Your task to perform on an android device: Set the phone to "Do not disturb". Image 0: 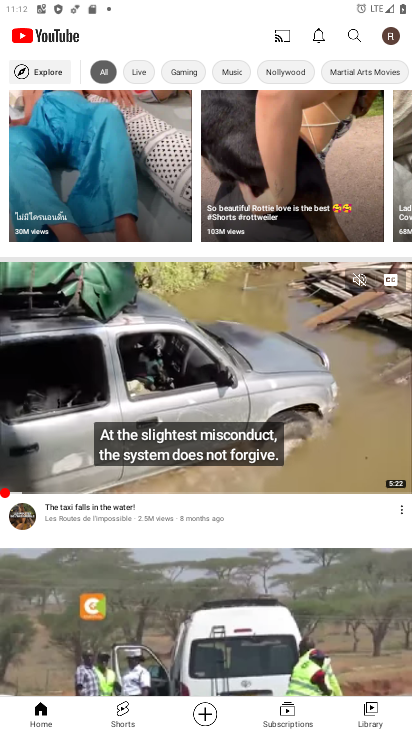
Step 0: press home button
Your task to perform on an android device: Set the phone to "Do not disturb". Image 1: 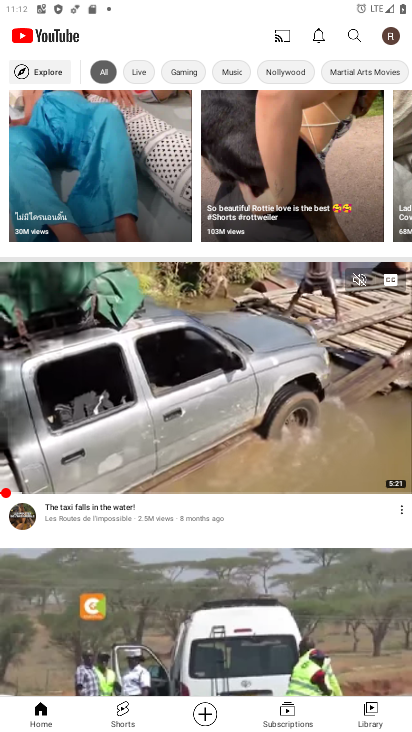
Step 1: drag from (197, 658) to (239, 145)
Your task to perform on an android device: Set the phone to "Do not disturb". Image 2: 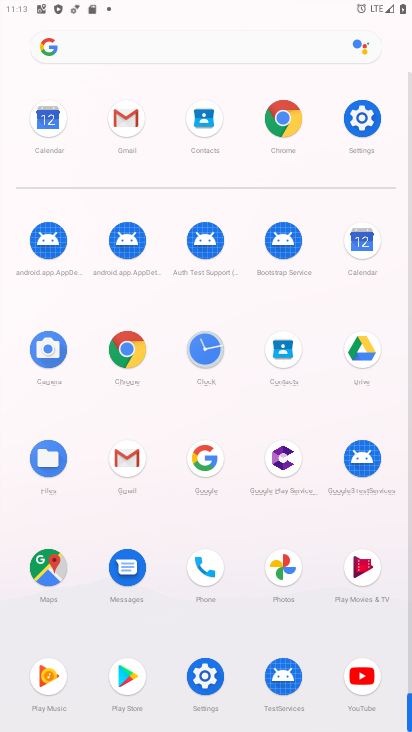
Step 2: click (357, 127)
Your task to perform on an android device: Set the phone to "Do not disturb". Image 3: 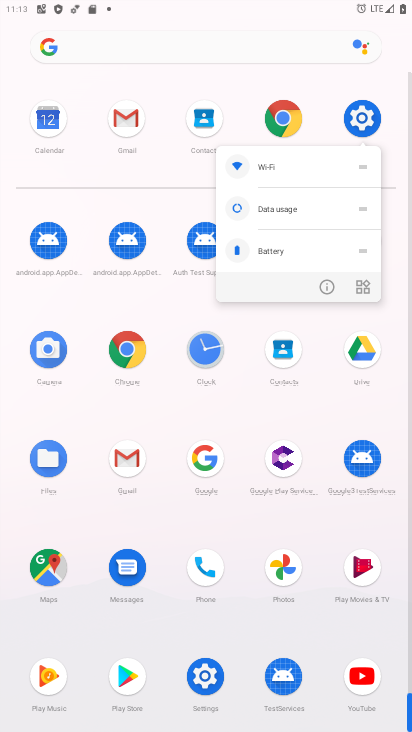
Step 3: click (325, 288)
Your task to perform on an android device: Set the phone to "Do not disturb". Image 4: 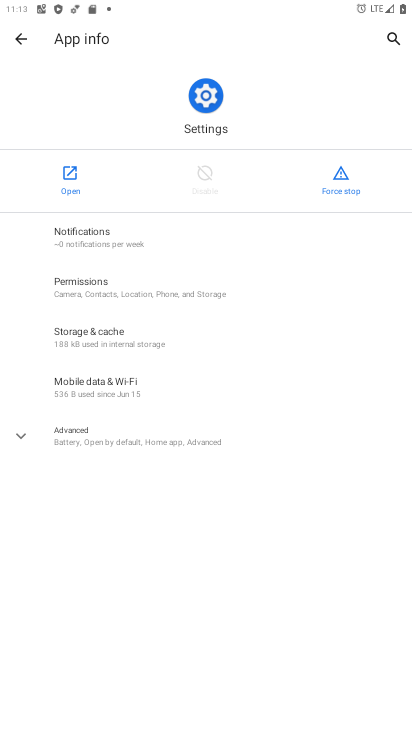
Step 4: click (53, 176)
Your task to perform on an android device: Set the phone to "Do not disturb". Image 5: 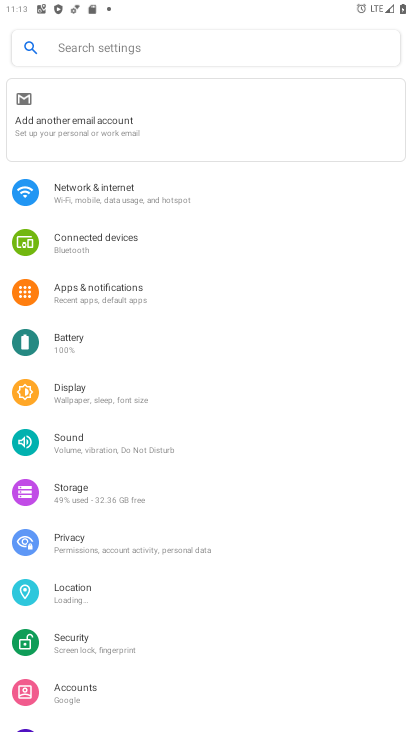
Step 5: drag from (196, 539) to (272, 183)
Your task to perform on an android device: Set the phone to "Do not disturb". Image 6: 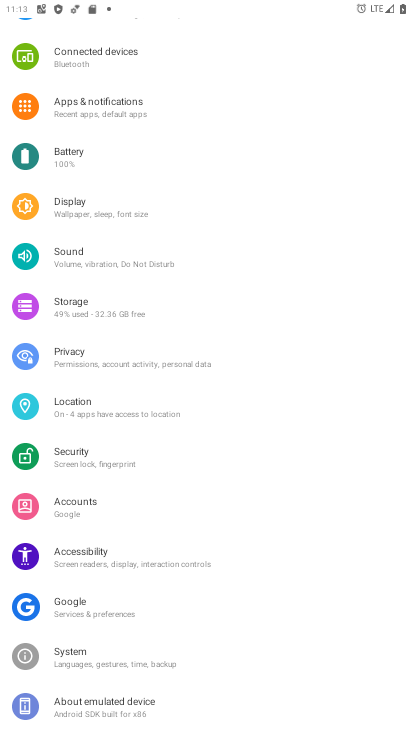
Step 6: drag from (179, 488) to (227, 198)
Your task to perform on an android device: Set the phone to "Do not disturb". Image 7: 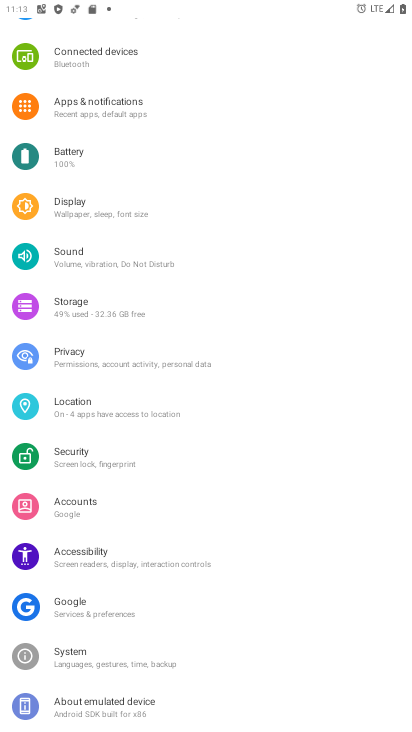
Step 7: drag from (240, 134) to (236, 712)
Your task to perform on an android device: Set the phone to "Do not disturb". Image 8: 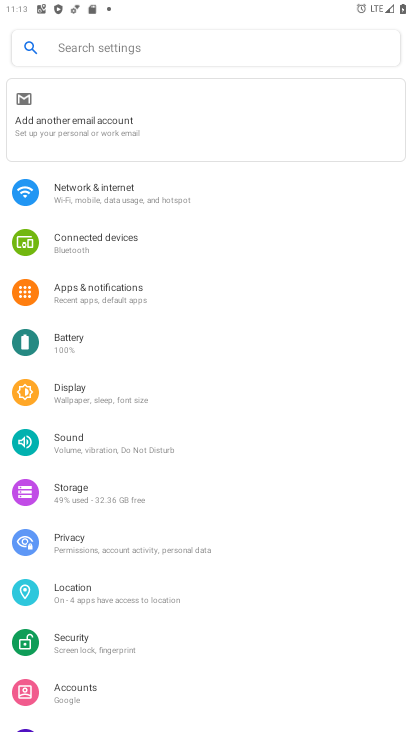
Step 8: drag from (177, 433) to (279, 149)
Your task to perform on an android device: Set the phone to "Do not disturb". Image 9: 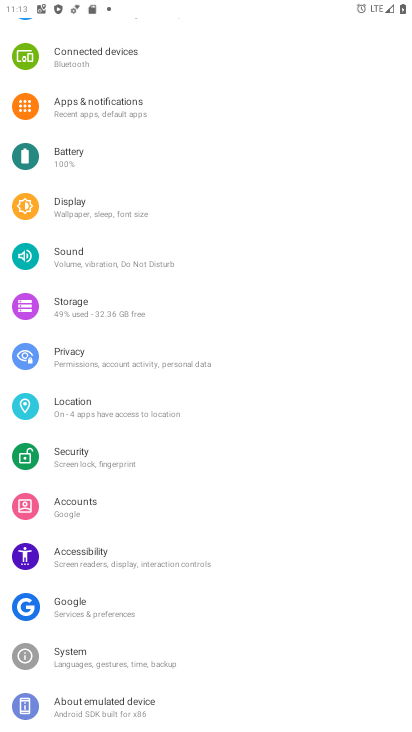
Step 9: drag from (279, 126) to (271, 249)
Your task to perform on an android device: Set the phone to "Do not disturb". Image 10: 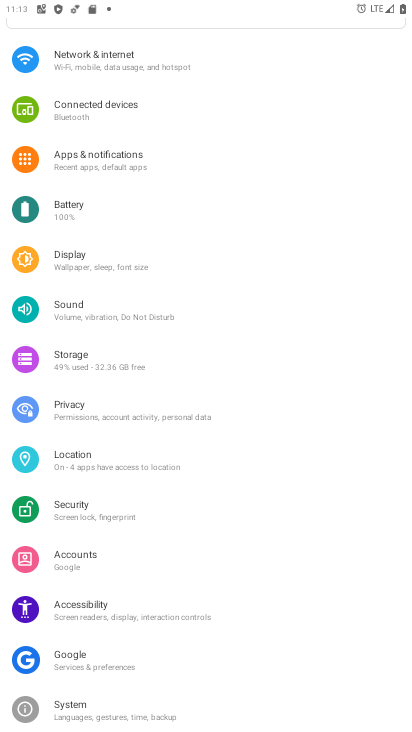
Step 10: drag from (203, 524) to (300, 145)
Your task to perform on an android device: Set the phone to "Do not disturb". Image 11: 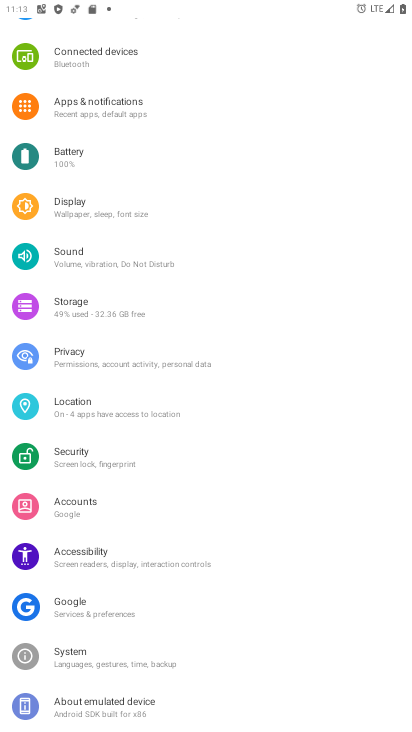
Step 11: click (162, 701)
Your task to perform on an android device: Set the phone to "Do not disturb". Image 12: 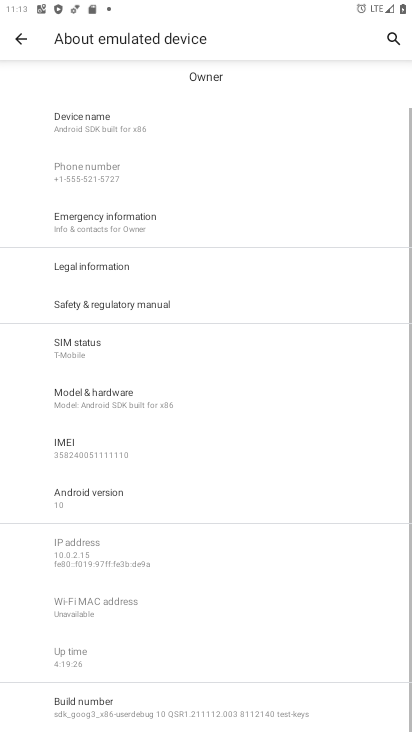
Step 12: drag from (192, 595) to (211, 280)
Your task to perform on an android device: Set the phone to "Do not disturb". Image 13: 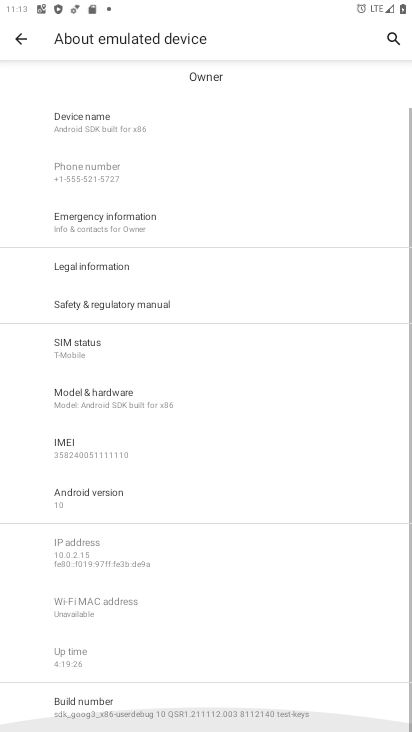
Step 13: drag from (157, 328) to (162, 665)
Your task to perform on an android device: Set the phone to "Do not disturb". Image 14: 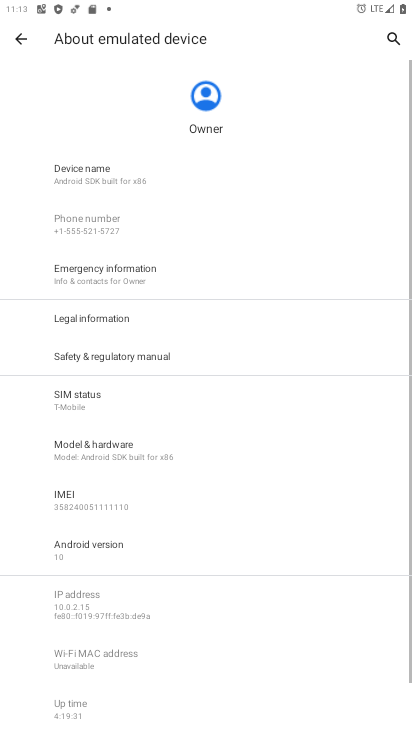
Step 14: drag from (204, 527) to (242, 245)
Your task to perform on an android device: Set the phone to "Do not disturb". Image 15: 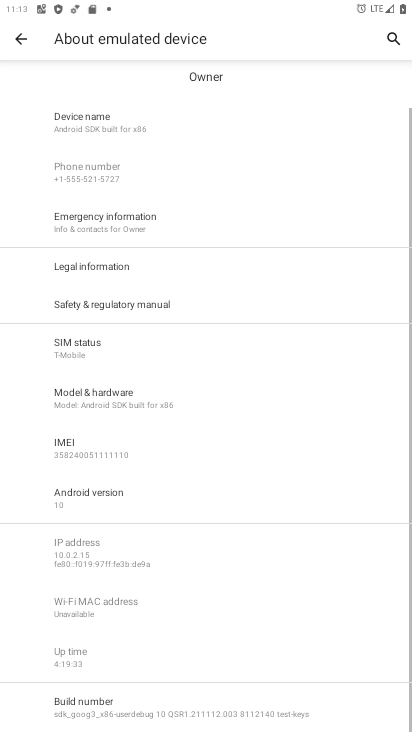
Step 15: drag from (176, 520) to (219, 252)
Your task to perform on an android device: Set the phone to "Do not disturb". Image 16: 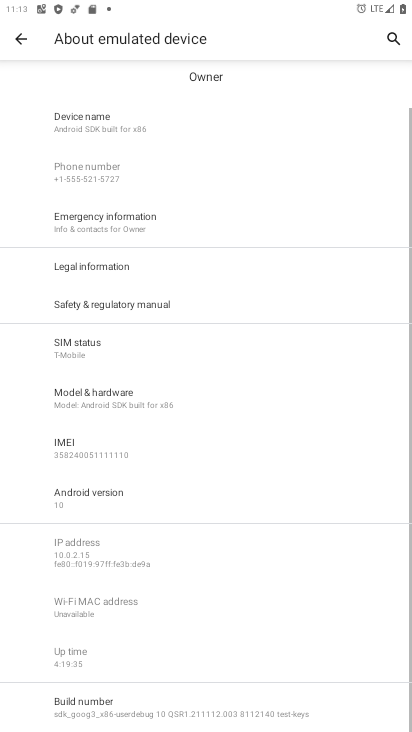
Step 16: drag from (190, 268) to (248, 639)
Your task to perform on an android device: Set the phone to "Do not disturb". Image 17: 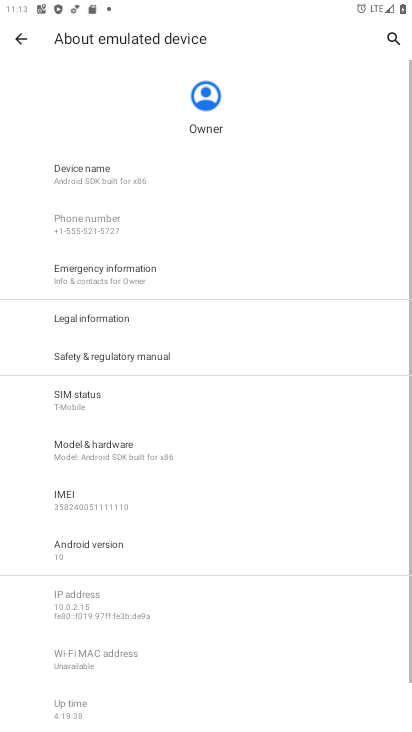
Step 17: click (18, 39)
Your task to perform on an android device: Set the phone to "Do not disturb". Image 18: 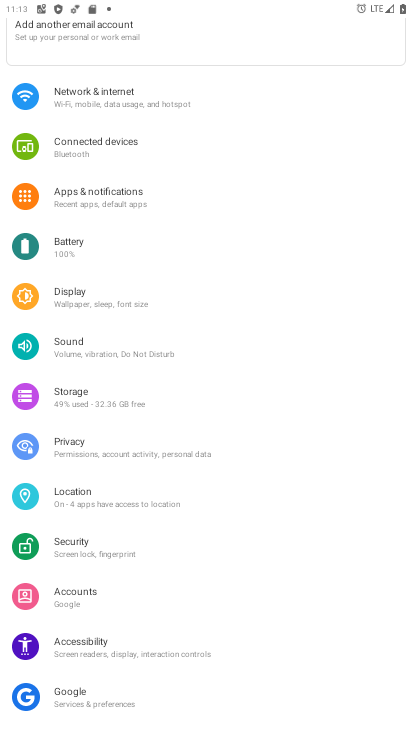
Step 18: click (110, 198)
Your task to perform on an android device: Set the phone to "Do not disturb". Image 19: 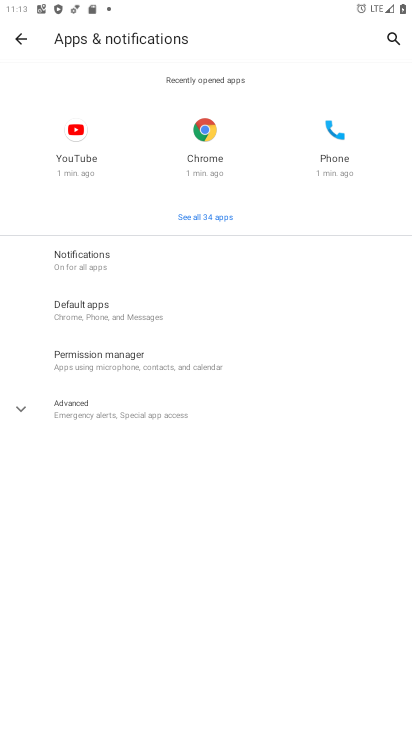
Step 19: click (133, 261)
Your task to perform on an android device: Set the phone to "Do not disturb". Image 20: 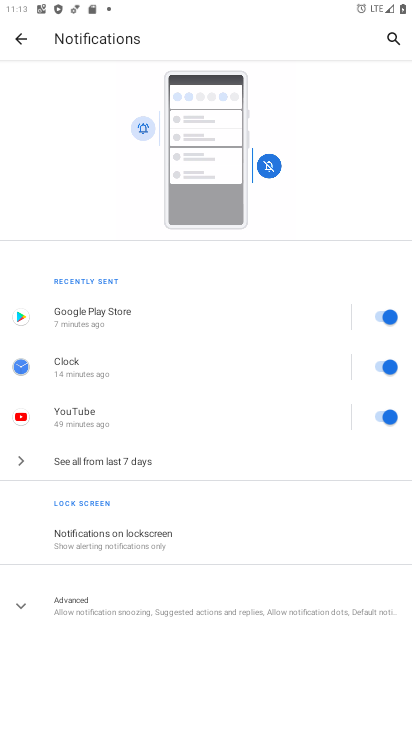
Step 20: drag from (190, 475) to (298, 10)
Your task to perform on an android device: Set the phone to "Do not disturb". Image 21: 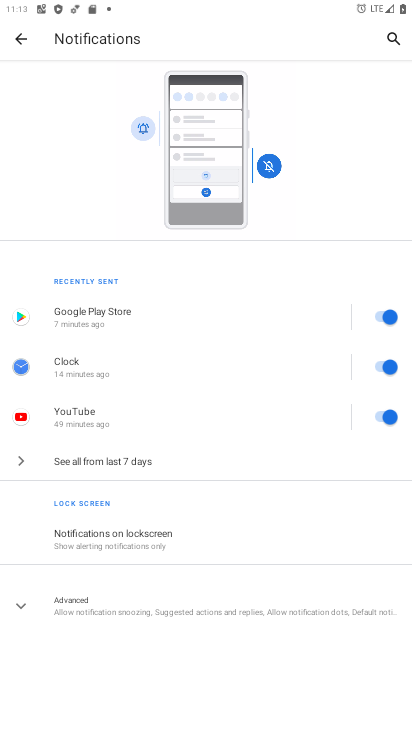
Step 21: click (84, 590)
Your task to perform on an android device: Set the phone to "Do not disturb". Image 22: 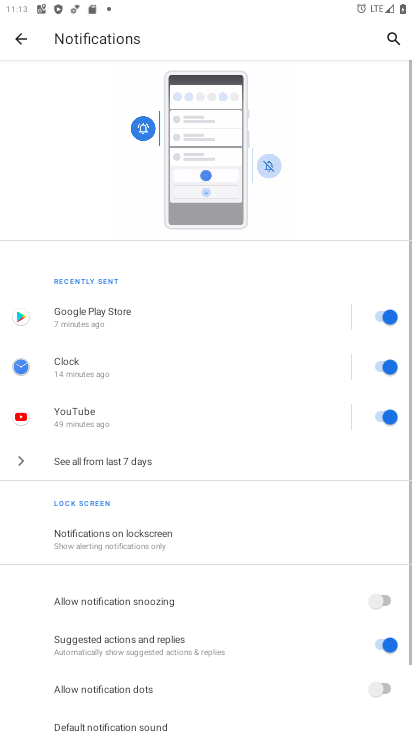
Step 22: drag from (177, 554) to (303, 112)
Your task to perform on an android device: Set the phone to "Do not disturb". Image 23: 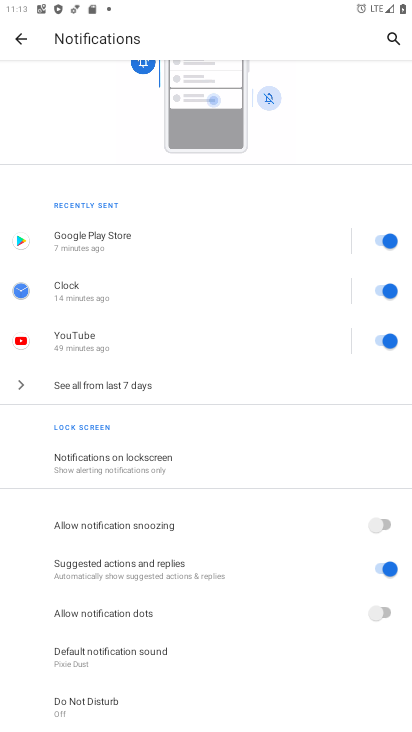
Step 23: click (111, 709)
Your task to perform on an android device: Set the phone to "Do not disturb". Image 24: 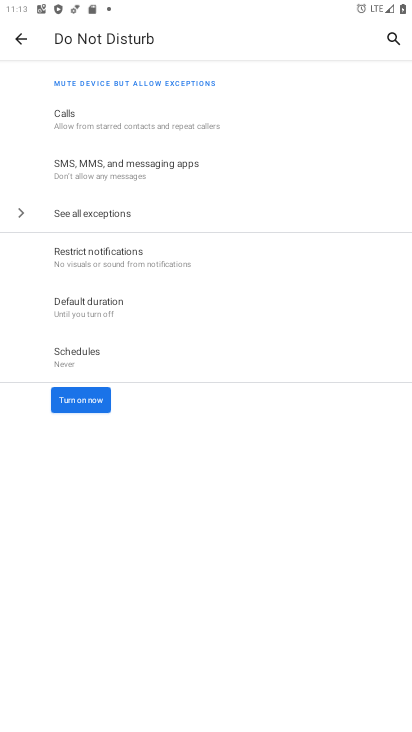
Step 24: click (70, 409)
Your task to perform on an android device: Set the phone to "Do not disturb". Image 25: 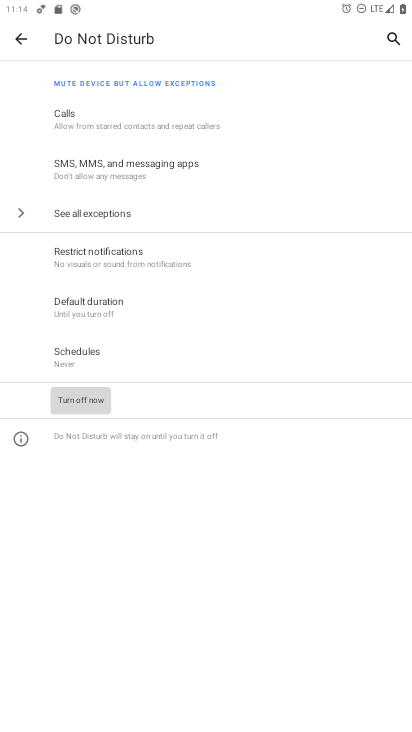
Step 25: task complete